Your task to perform on an android device: Open the web browser Image 0: 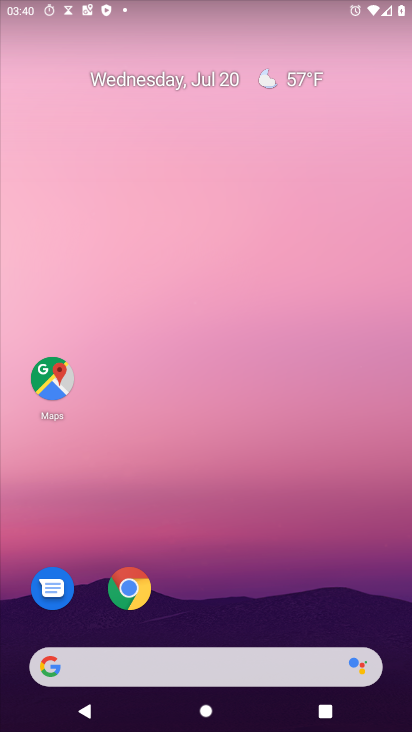
Step 0: drag from (317, 653) to (318, 3)
Your task to perform on an android device: Open the web browser Image 1: 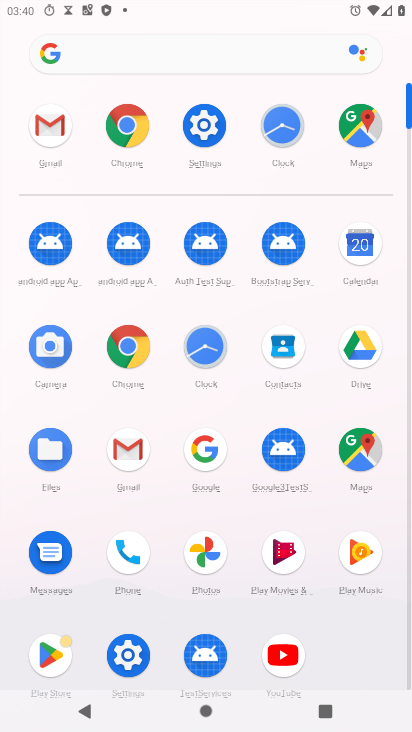
Step 1: click (118, 345)
Your task to perform on an android device: Open the web browser Image 2: 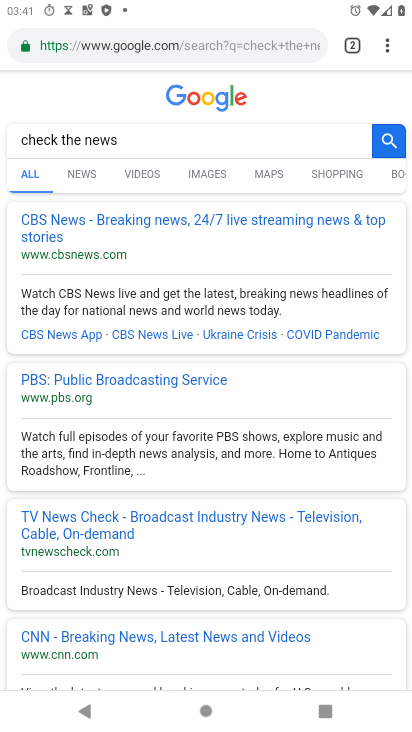
Step 2: task complete